Your task to perform on an android device: Go to settings Image 0: 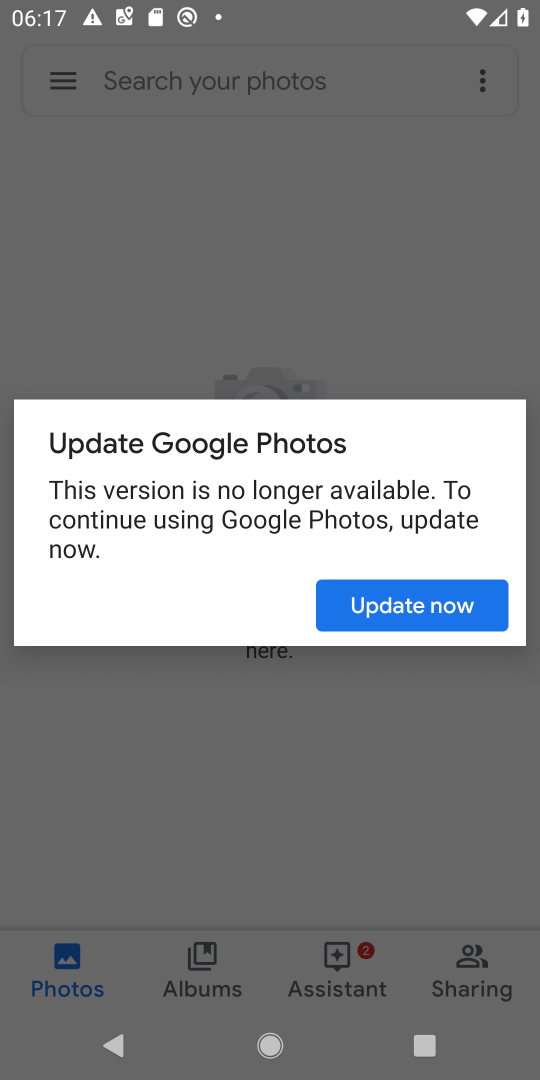
Step 0: press home button
Your task to perform on an android device: Go to settings Image 1: 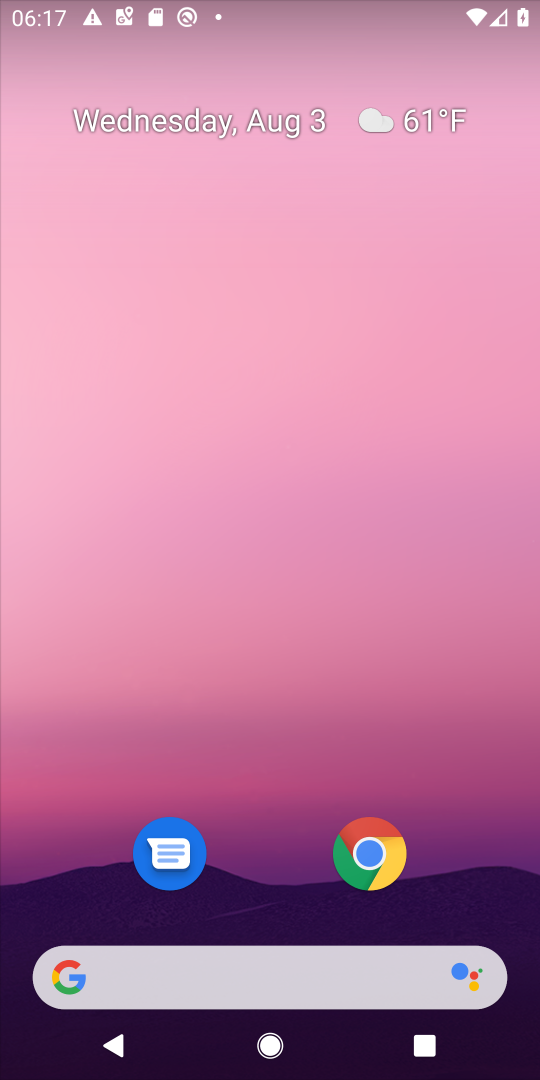
Step 1: drag from (324, 995) to (324, 34)
Your task to perform on an android device: Go to settings Image 2: 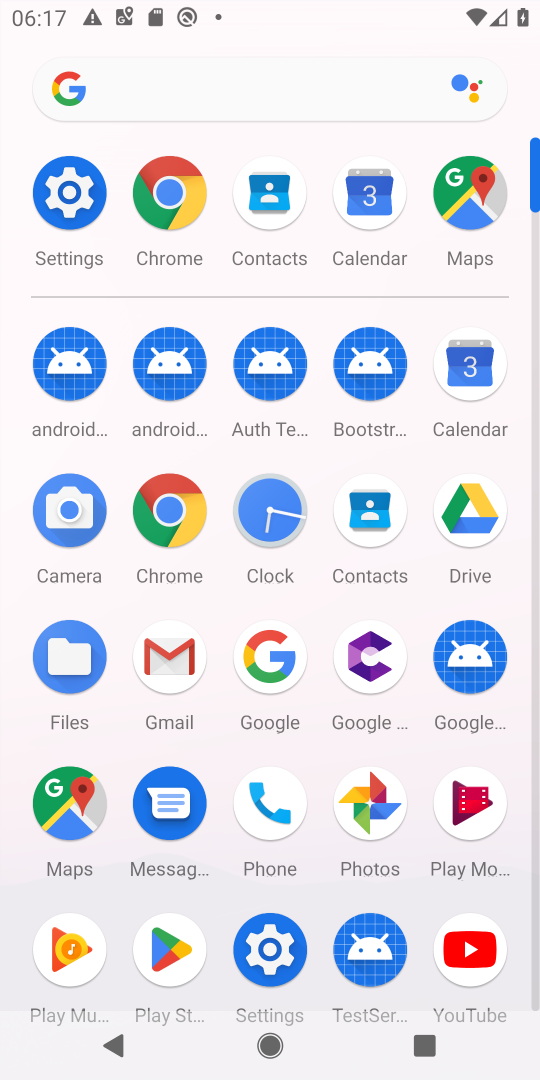
Step 2: click (58, 194)
Your task to perform on an android device: Go to settings Image 3: 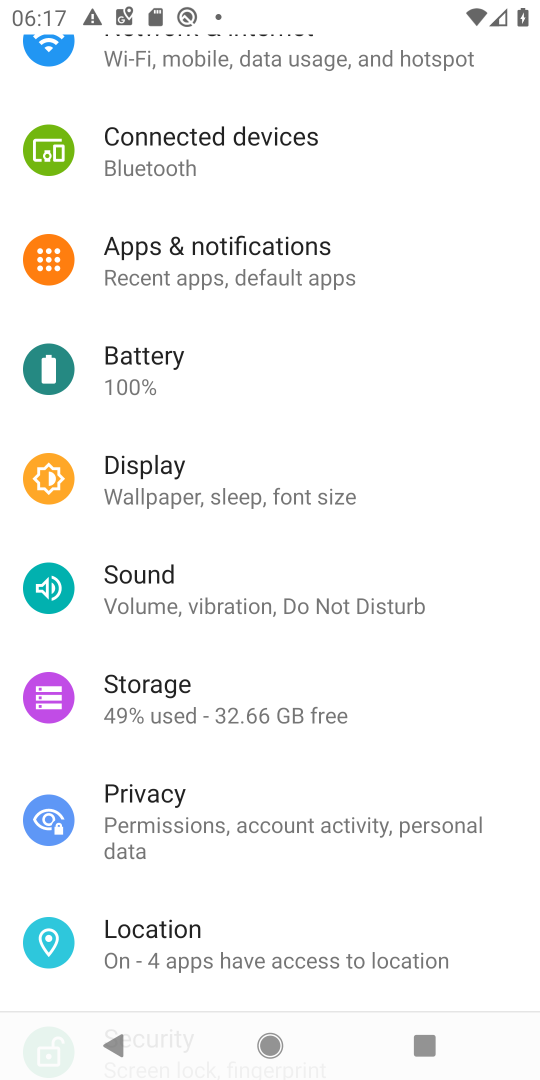
Step 3: task complete